Your task to perform on an android device: refresh tabs in the chrome app Image 0: 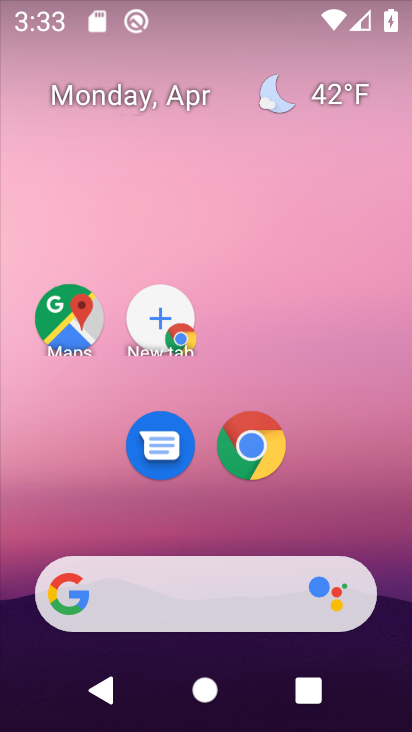
Step 0: drag from (210, 518) to (244, 129)
Your task to perform on an android device: refresh tabs in the chrome app Image 1: 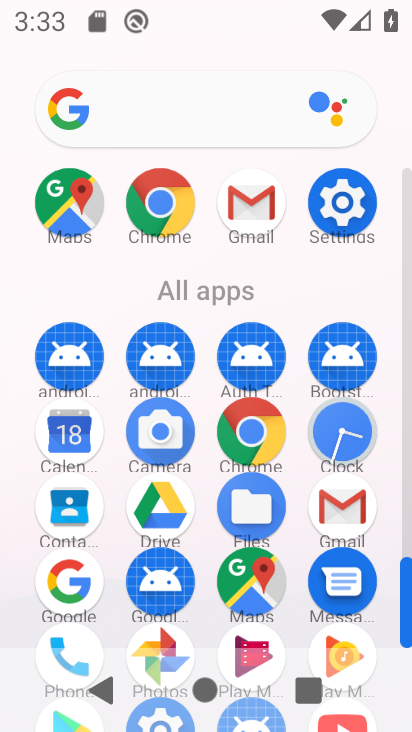
Step 1: click (242, 427)
Your task to perform on an android device: refresh tabs in the chrome app Image 2: 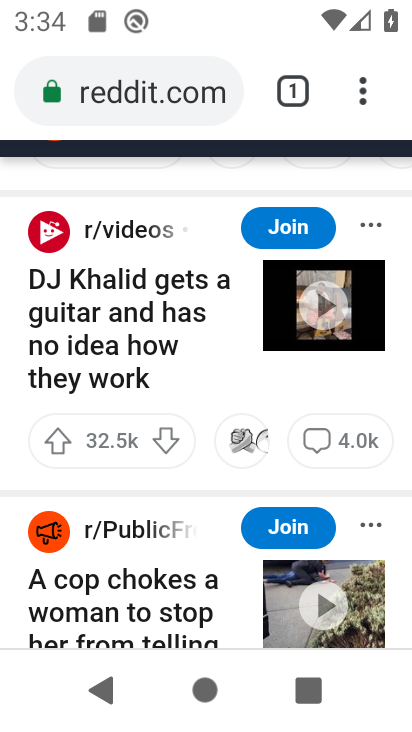
Step 2: click (362, 92)
Your task to perform on an android device: refresh tabs in the chrome app Image 3: 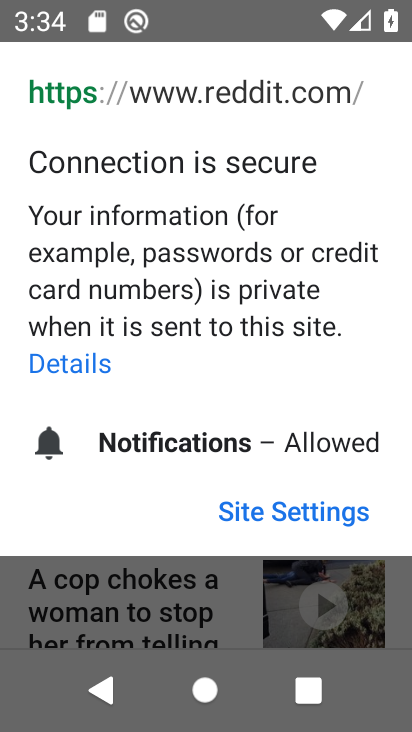
Step 3: click (210, 590)
Your task to perform on an android device: refresh tabs in the chrome app Image 4: 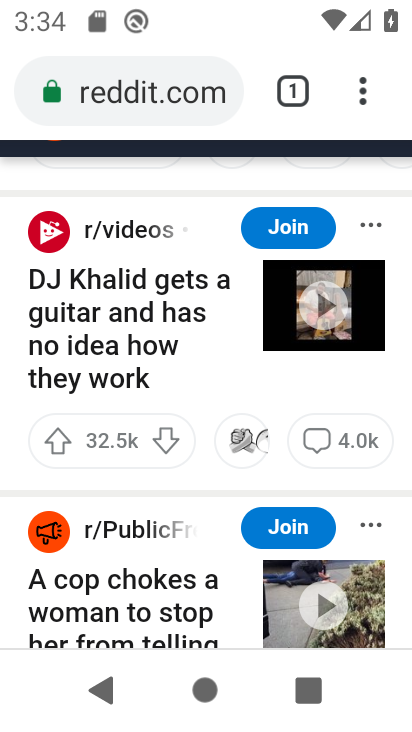
Step 4: click (365, 90)
Your task to perform on an android device: refresh tabs in the chrome app Image 5: 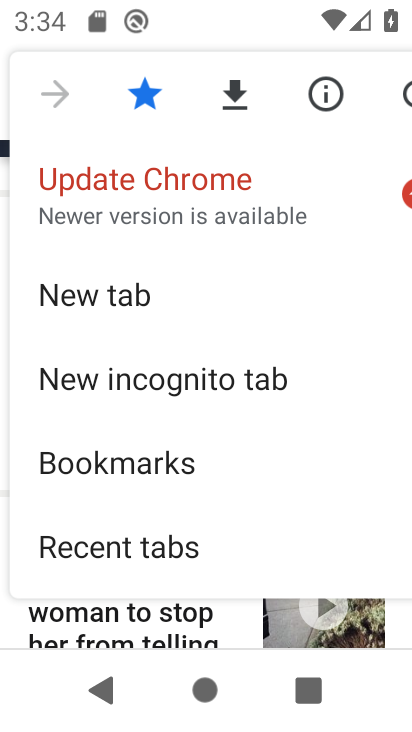
Step 5: click (405, 97)
Your task to perform on an android device: refresh tabs in the chrome app Image 6: 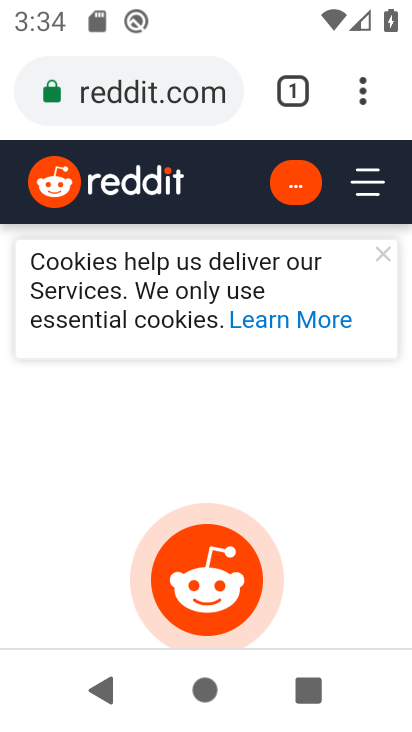
Step 6: task complete